Your task to perform on an android device: Search for the ikea billy bookcase Image 0: 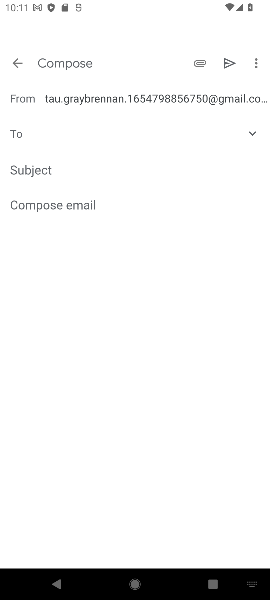
Step 0: press home button
Your task to perform on an android device: Search for the ikea billy bookcase Image 1: 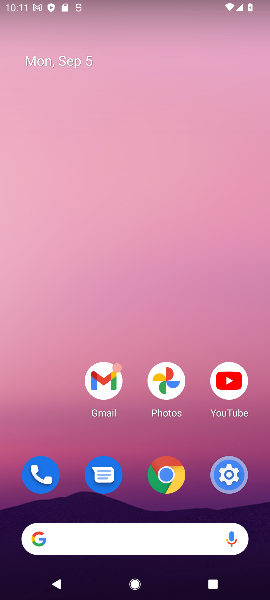
Step 1: click (117, 537)
Your task to perform on an android device: Search for the ikea billy bookcase Image 2: 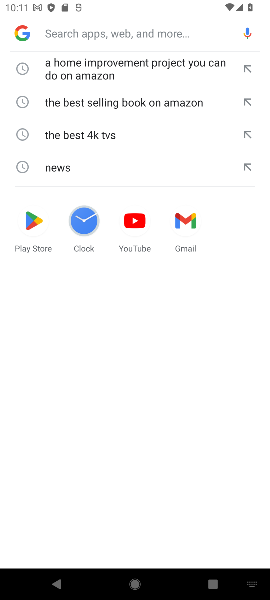
Step 2: click (117, 537)
Your task to perform on an android device: Search for the ikea billy bookcase Image 3: 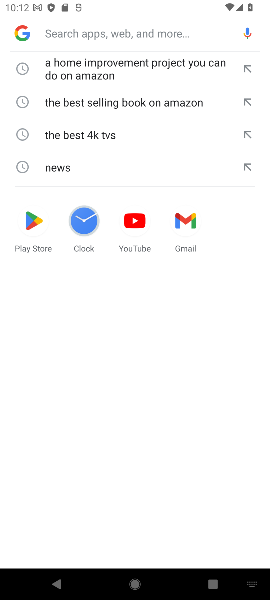
Step 3: type "the ikea billy bookcase"
Your task to perform on an android device: Search for the ikea billy bookcase Image 4: 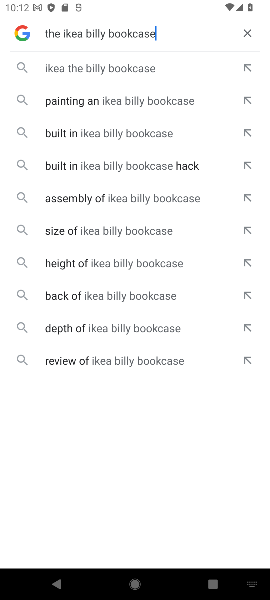
Step 4: click (120, 64)
Your task to perform on an android device: Search for the ikea billy bookcase Image 5: 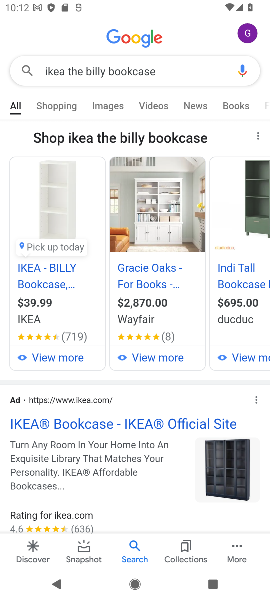
Step 5: click (132, 25)
Your task to perform on an android device: Search for the ikea billy bookcase Image 6: 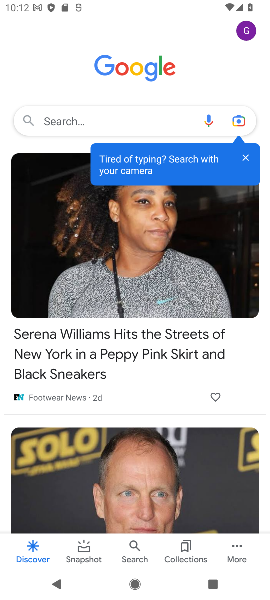
Step 6: task complete